Your task to perform on an android device: change alarm snooze length Image 0: 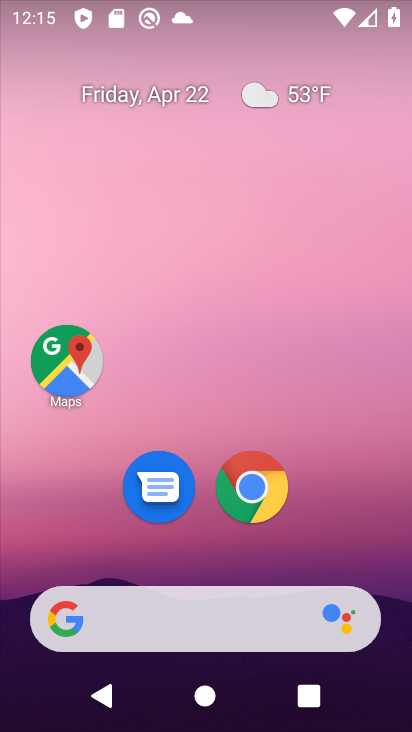
Step 0: drag from (227, 555) to (240, 51)
Your task to perform on an android device: change alarm snooze length Image 1: 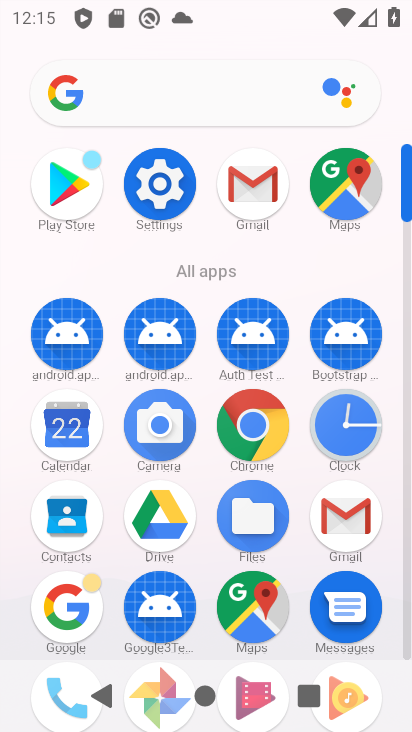
Step 1: click (358, 443)
Your task to perform on an android device: change alarm snooze length Image 2: 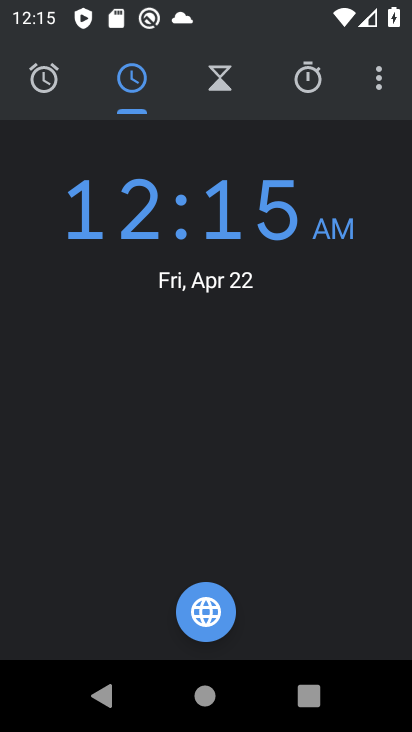
Step 2: click (392, 90)
Your task to perform on an android device: change alarm snooze length Image 3: 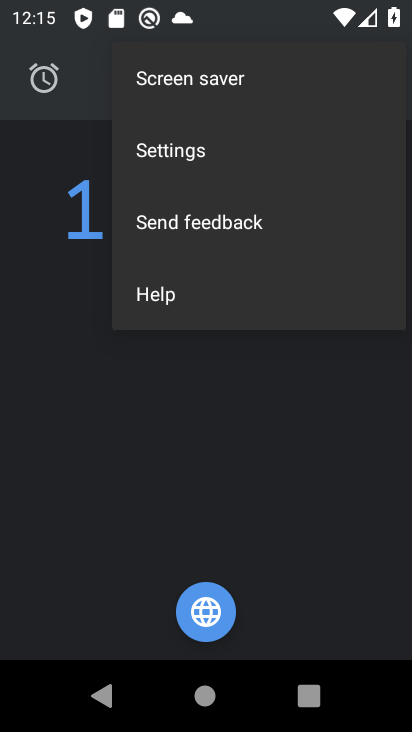
Step 3: click (181, 150)
Your task to perform on an android device: change alarm snooze length Image 4: 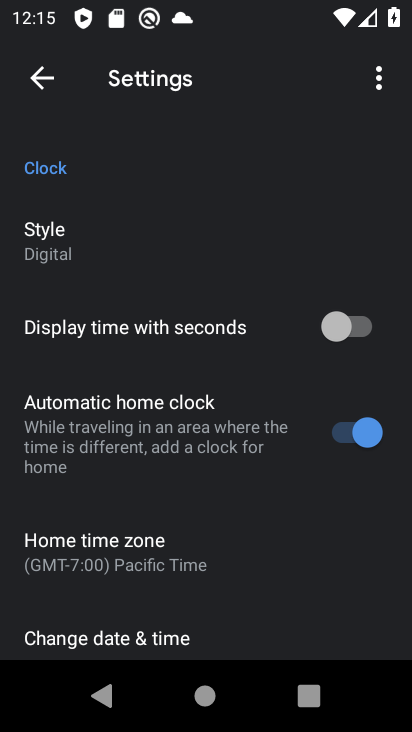
Step 4: drag from (174, 613) to (182, 104)
Your task to perform on an android device: change alarm snooze length Image 5: 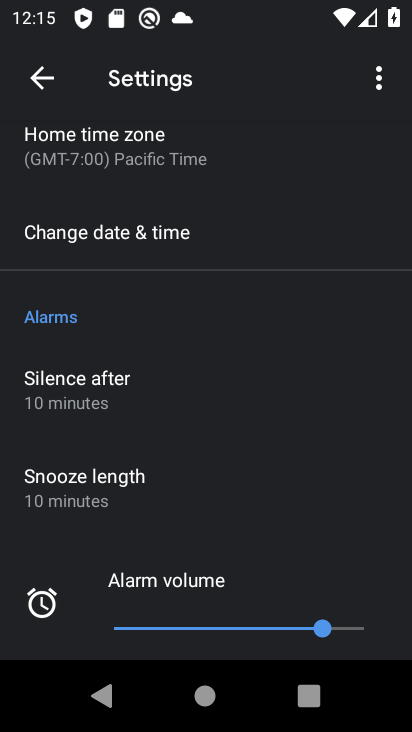
Step 5: click (106, 467)
Your task to perform on an android device: change alarm snooze length Image 6: 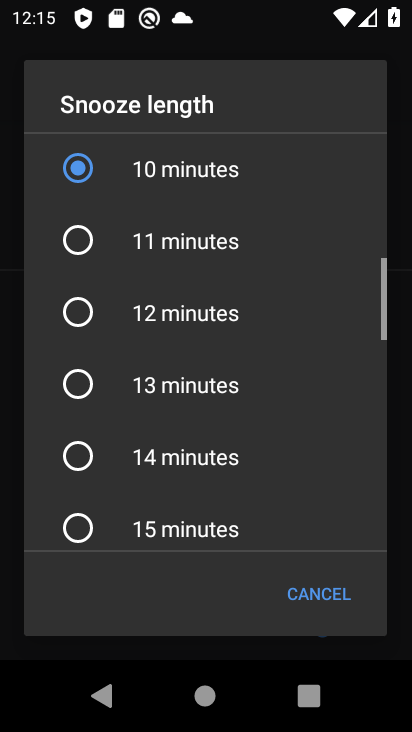
Step 6: click (106, 467)
Your task to perform on an android device: change alarm snooze length Image 7: 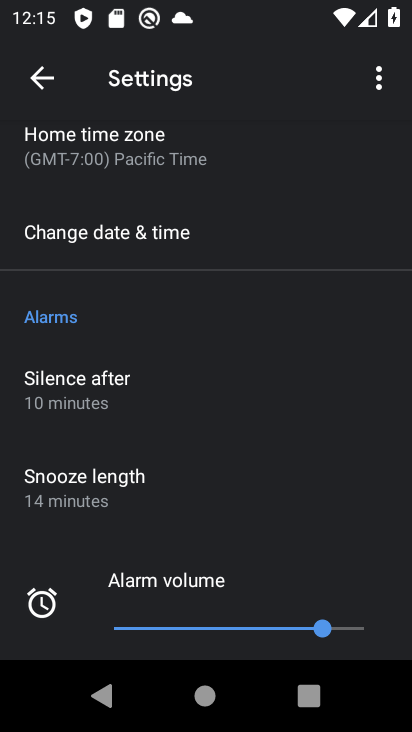
Step 7: task complete